Your task to perform on an android device: toggle notification dots Image 0: 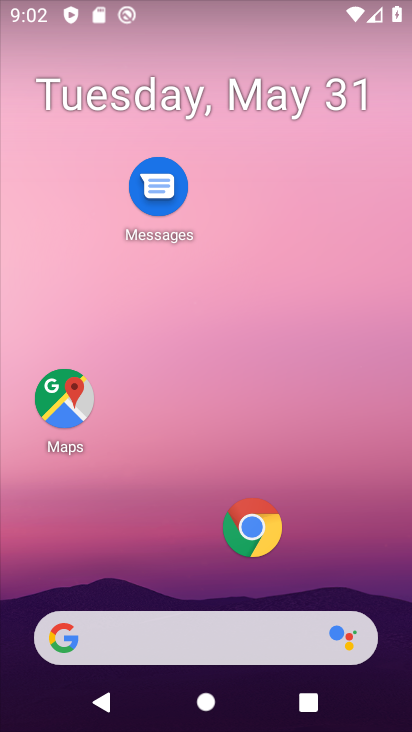
Step 0: drag from (190, 591) to (154, 182)
Your task to perform on an android device: toggle notification dots Image 1: 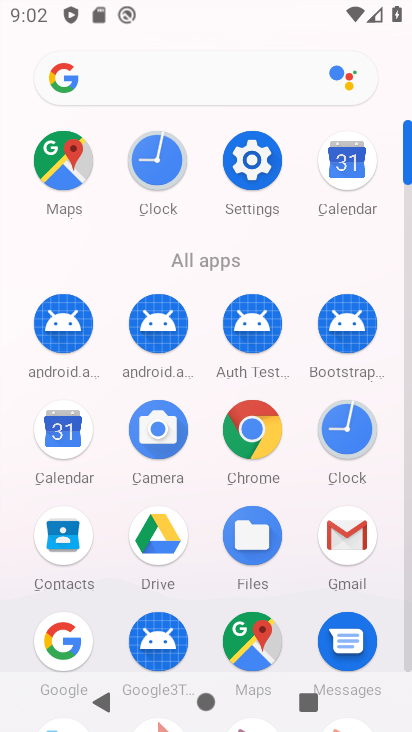
Step 1: click (255, 175)
Your task to perform on an android device: toggle notification dots Image 2: 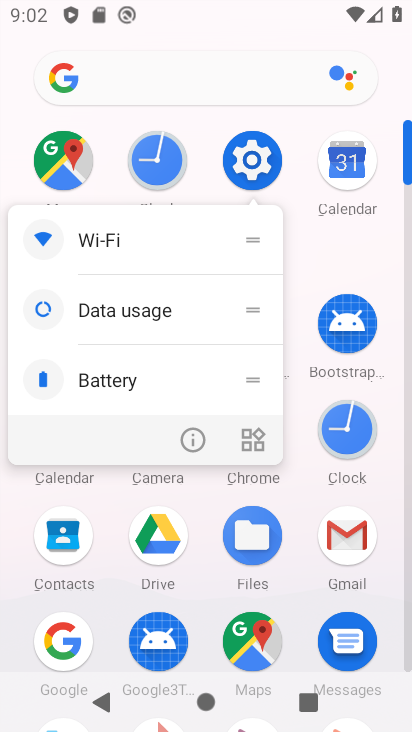
Step 2: click (244, 165)
Your task to perform on an android device: toggle notification dots Image 3: 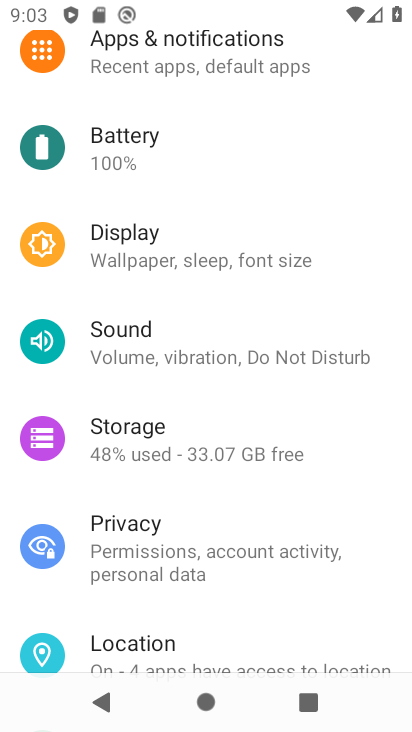
Step 3: click (205, 298)
Your task to perform on an android device: toggle notification dots Image 4: 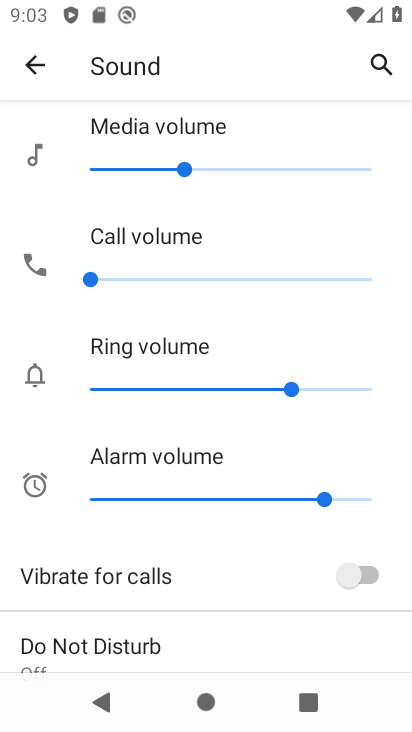
Step 4: click (27, 74)
Your task to perform on an android device: toggle notification dots Image 5: 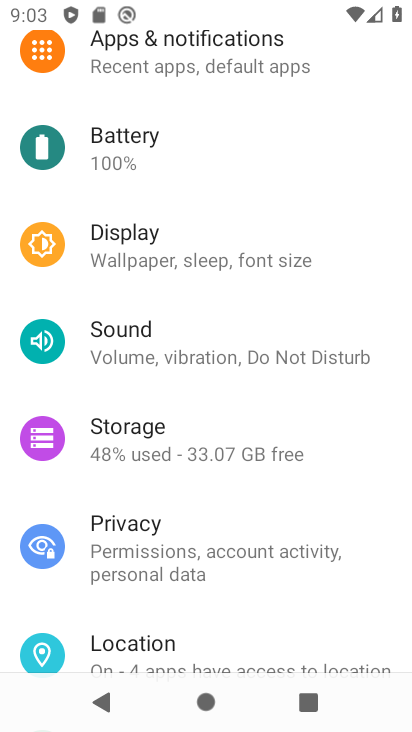
Step 5: drag from (207, 499) to (214, 210)
Your task to perform on an android device: toggle notification dots Image 6: 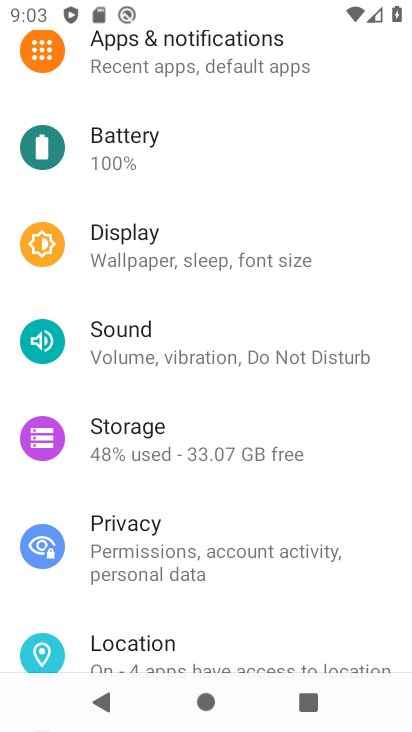
Step 6: click (158, 51)
Your task to perform on an android device: toggle notification dots Image 7: 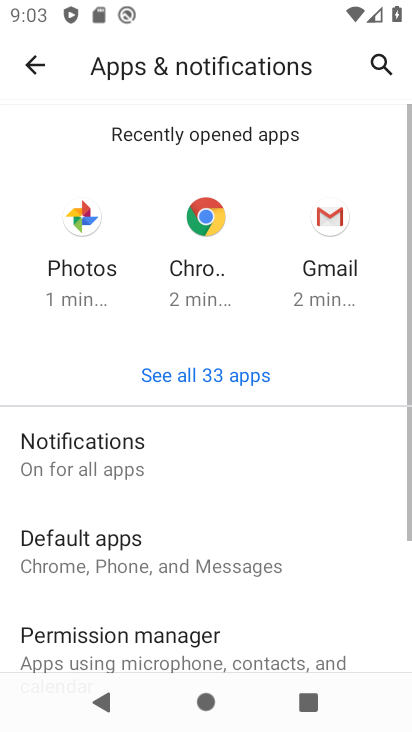
Step 7: click (131, 458)
Your task to perform on an android device: toggle notification dots Image 8: 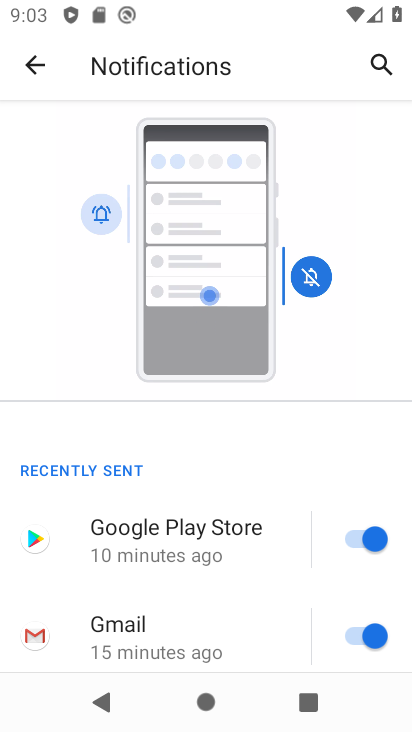
Step 8: drag from (189, 604) to (196, 253)
Your task to perform on an android device: toggle notification dots Image 9: 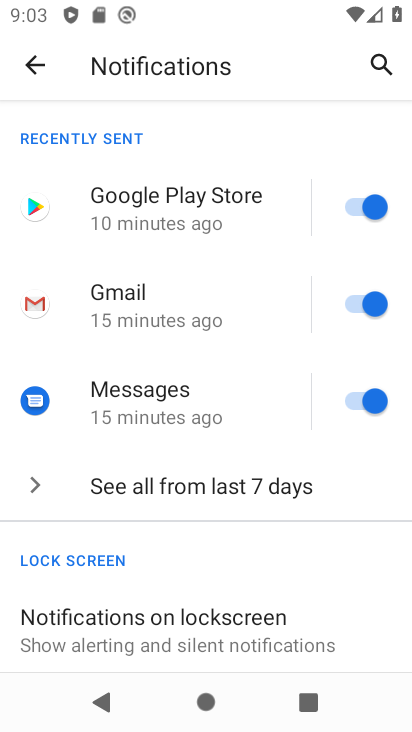
Step 9: drag from (171, 623) to (149, 347)
Your task to perform on an android device: toggle notification dots Image 10: 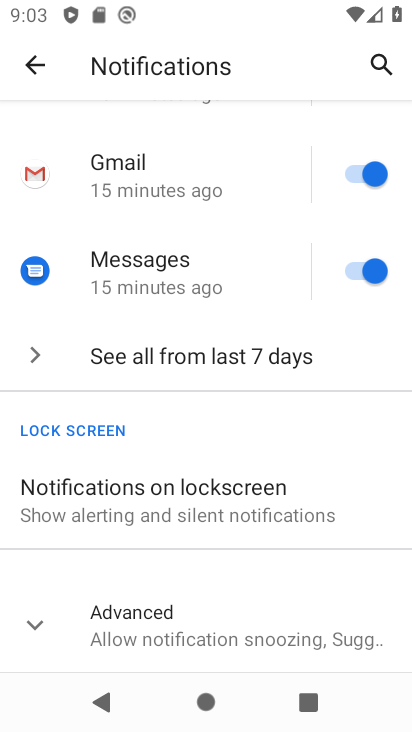
Step 10: click (153, 639)
Your task to perform on an android device: toggle notification dots Image 11: 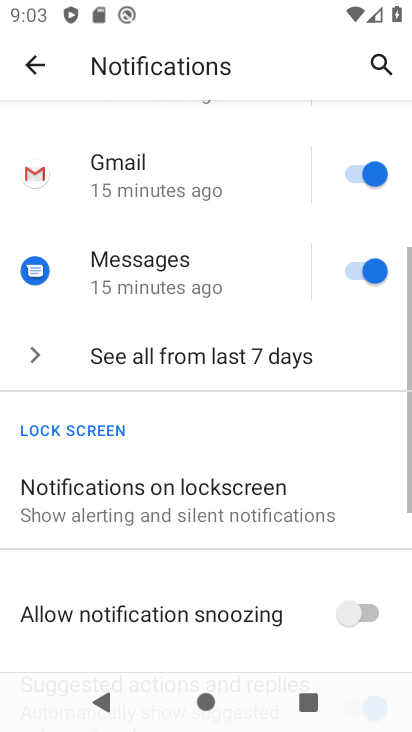
Step 11: drag from (155, 631) to (152, 311)
Your task to perform on an android device: toggle notification dots Image 12: 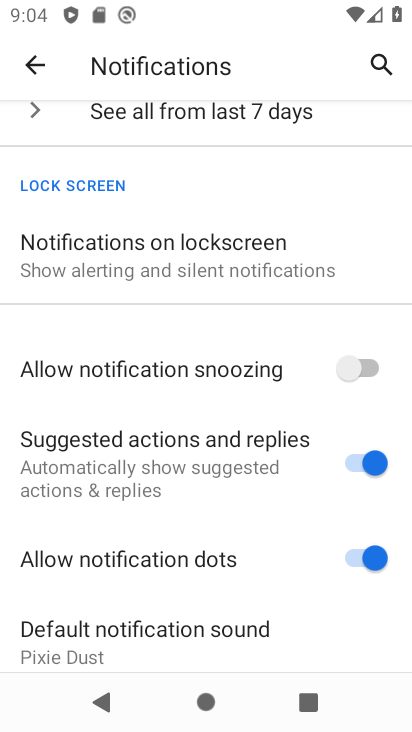
Step 12: click (357, 562)
Your task to perform on an android device: toggle notification dots Image 13: 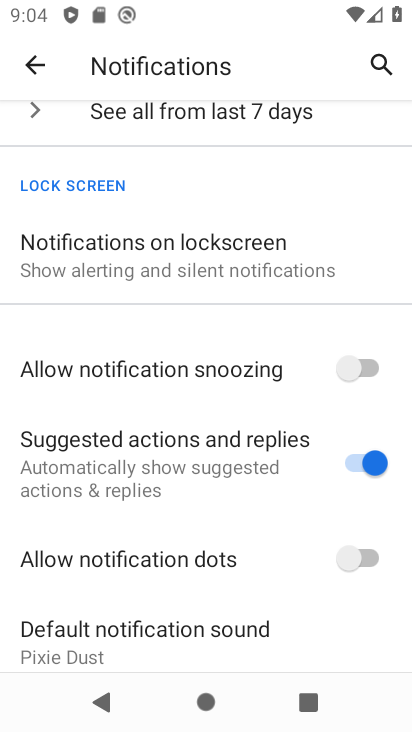
Step 13: task complete